Your task to perform on an android device: snooze an email in the gmail app Image 0: 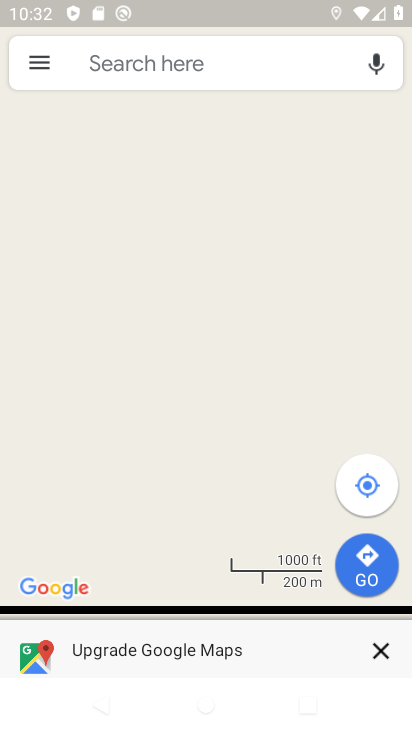
Step 0: press home button
Your task to perform on an android device: snooze an email in the gmail app Image 1: 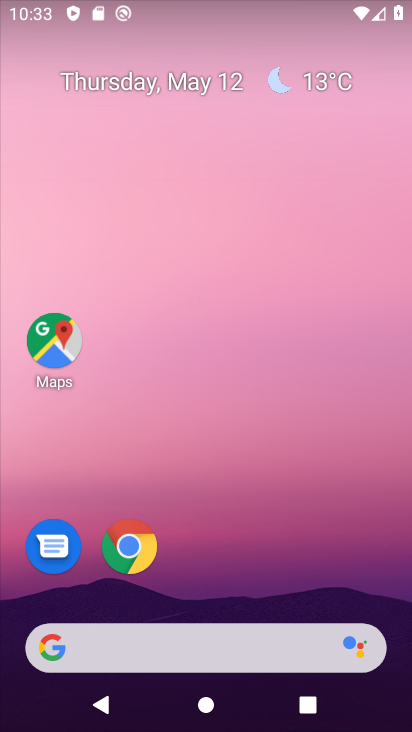
Step 1: drag from (248, 692) to (338, 140)
Your task to perform on an android device: snooze an email in the gmail app Image 2: 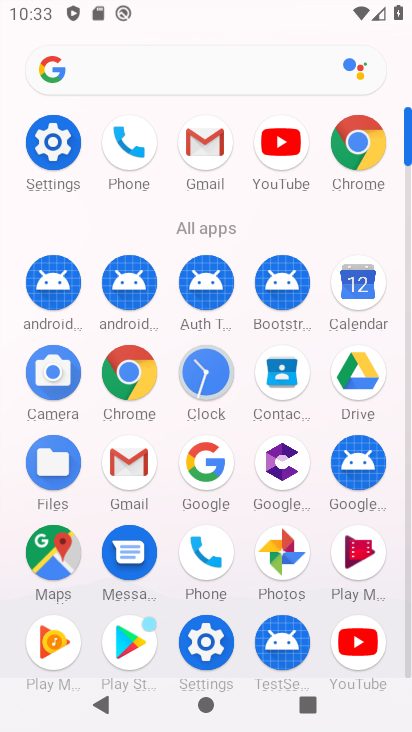
Step 2: click (129, 454)
Your task to perform on an android device: snooze an email in the gmail app Image 3: 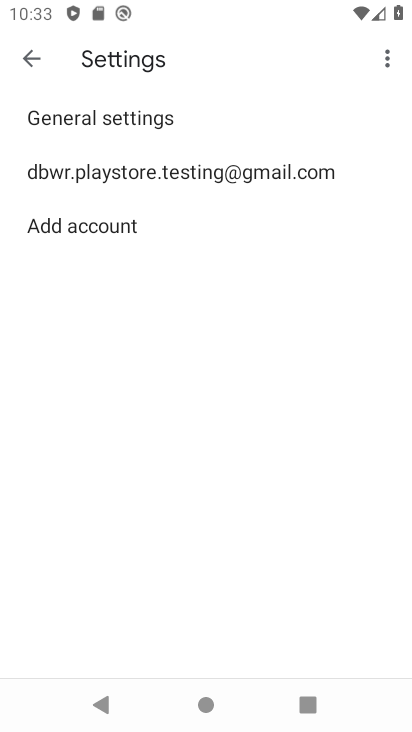
Step 3: click (25, 46)
Your task to perform on an android device: snooze an email in the gmail app Image 4: 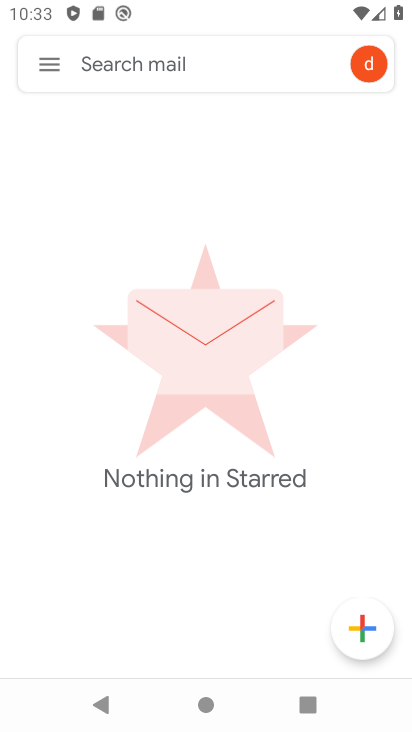
Step 4: click (51, 75)
Your task to perform on an android device: snooze an email in the gmail app Image 5: 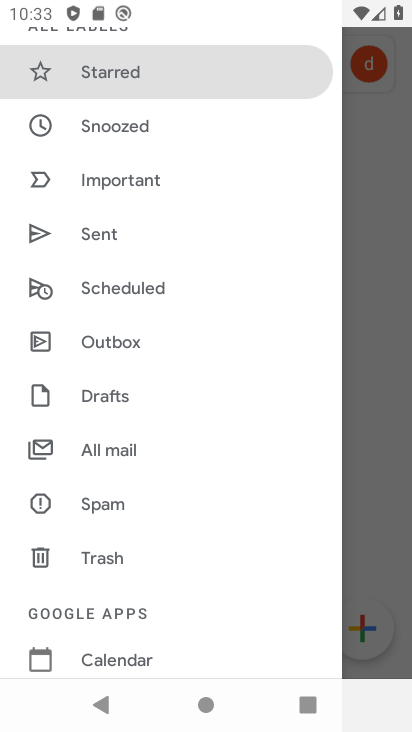
Step 5: click (102, 144)
Your task to perform on an android device: snooze an email in the gmail app Image 6: 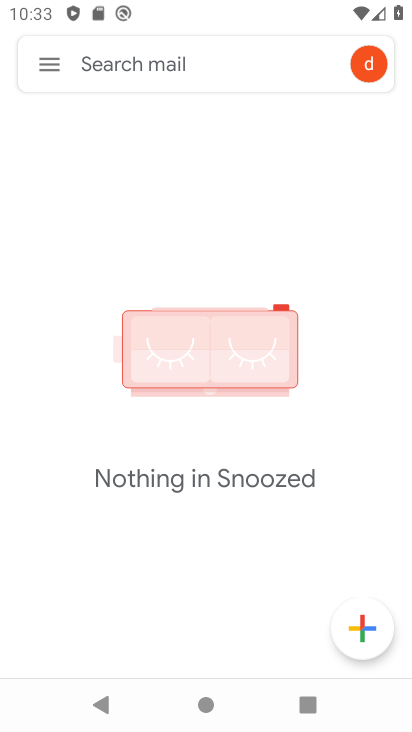
Step 6: task complete